Your task to perform on an android device: Turn off the flashlight Image 0: 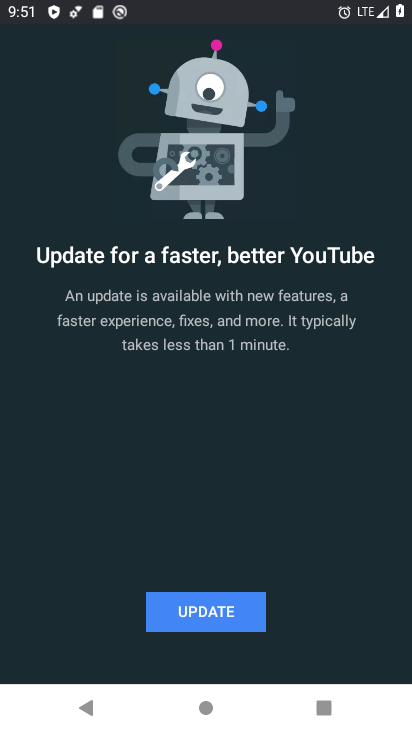
Step 0: press back button
Your task to perform on an android device: Turn off the flashlight Image 1: 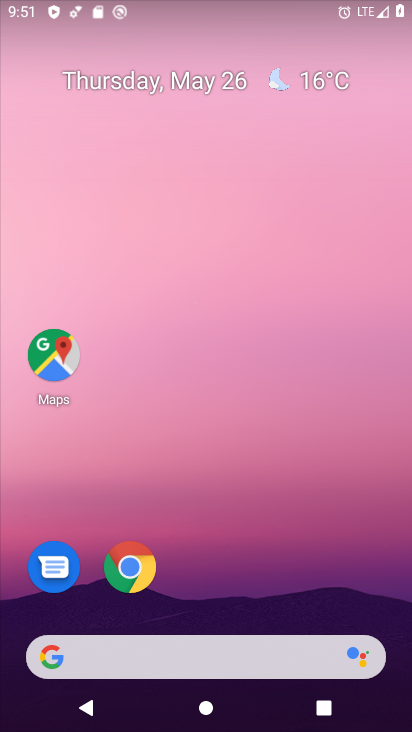
Step 1: drag from (384, 713) to (308, 97)
Your task to perform on an android device: Turn off the flashlight Image 2: 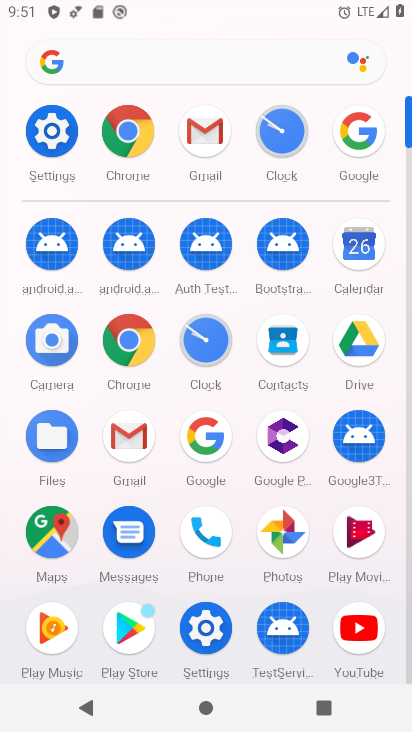
Step 2: click (67, 146)
Your task to perform on an android device: Turn off the flashlight Image 3: 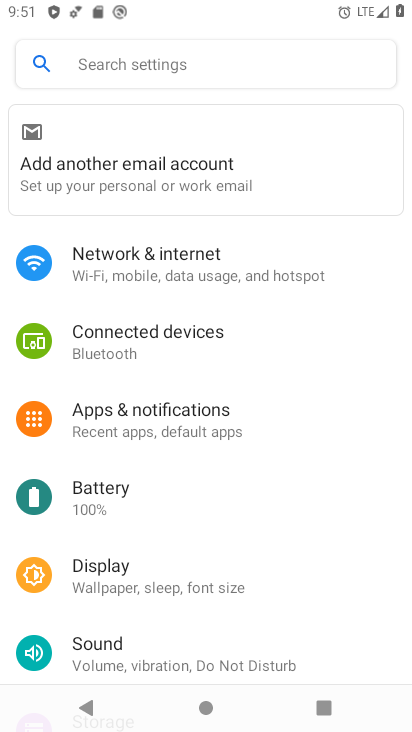
Step 3: click (94, 568)
Your task to perform on an android device: Turn off the flashlight Image 4: 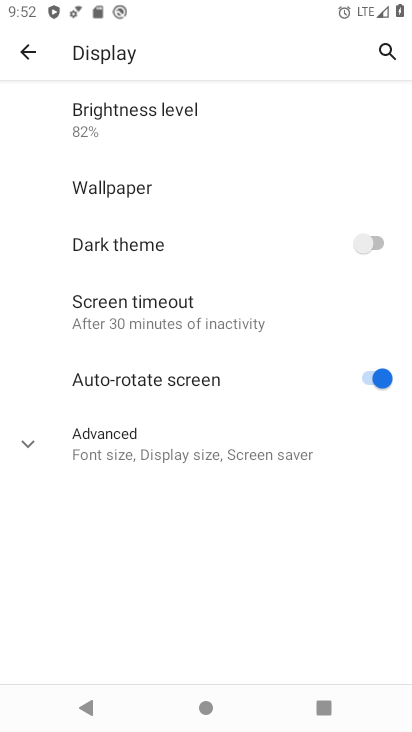
Step 4: task complete